Your task to perform on an android device: Open Chrome and go to settings Image 0: 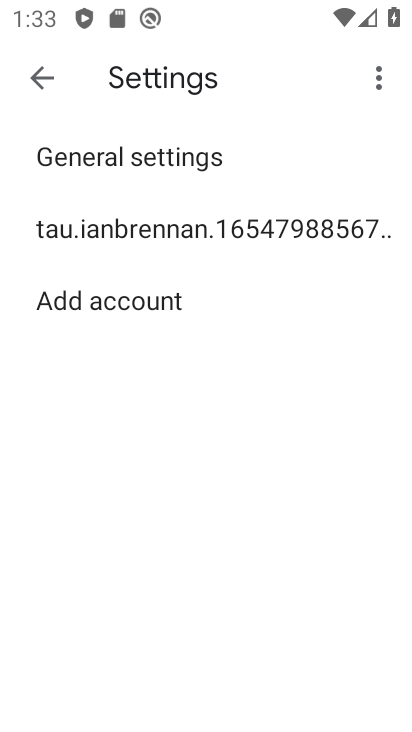
Step 0: press home button
Your task to perform on an android device: Open Chrome and go to settings Image 1: 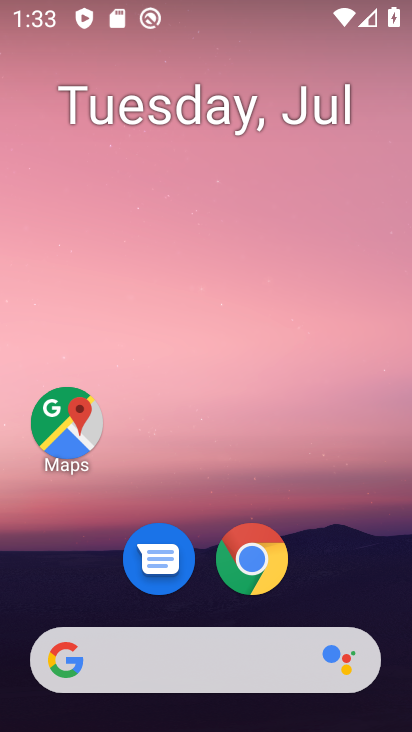
Step 1: drag from (370, 577) to (393, 136)
Your task to perform on an android device: Open Chrome and go to settings Image 2: 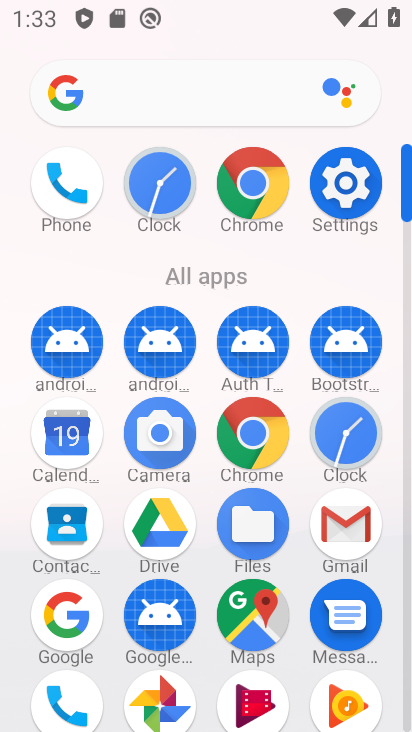
Step 2: click (271, 430)
Your task to perform on an android device: Open Chrome and go to settings Image 3: 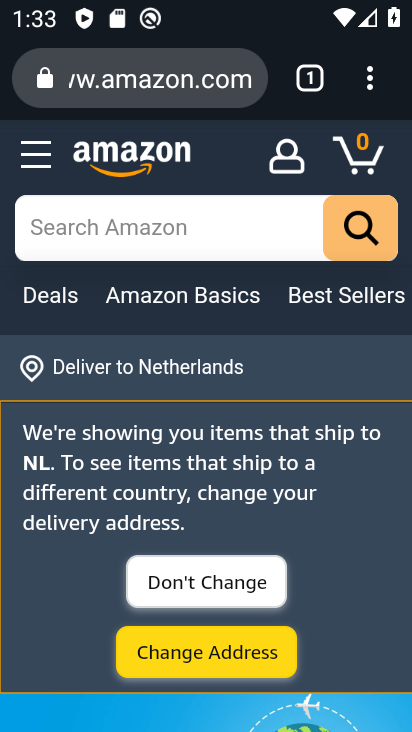
Step 3: click (374, 96)
Your task to perform on an android device: Open Chrome and go to settings Image 4: 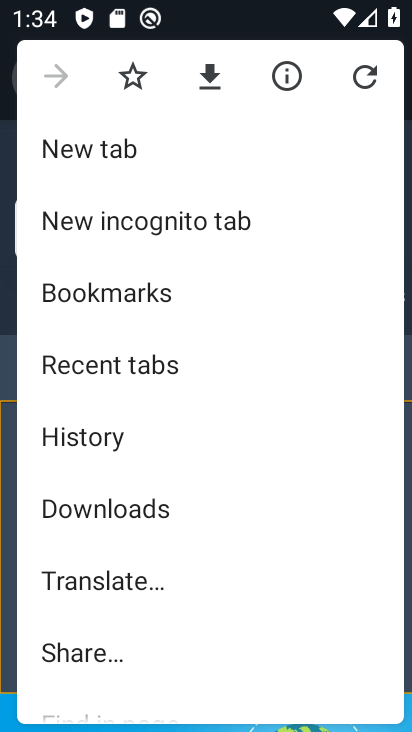
Step 4: drag from (297, 616) to (281, 486)
Your task to perform on an android device: Open Chrome and go to settings Image 5: 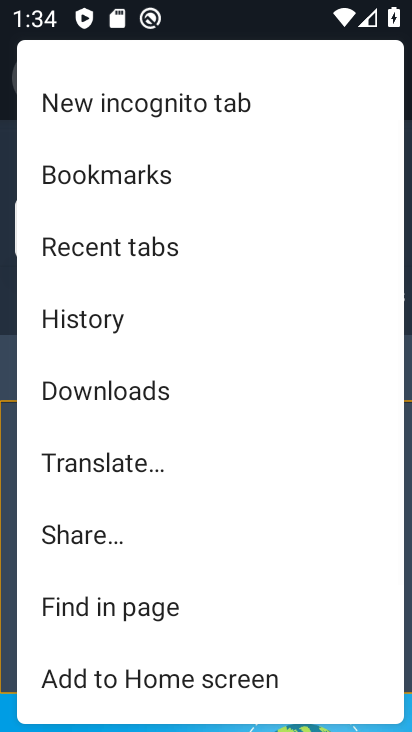
Step 5: drag from (288, 578) to (291, 442)
Your task to perform on an android device: Open Chrome and go to settings Image 6: 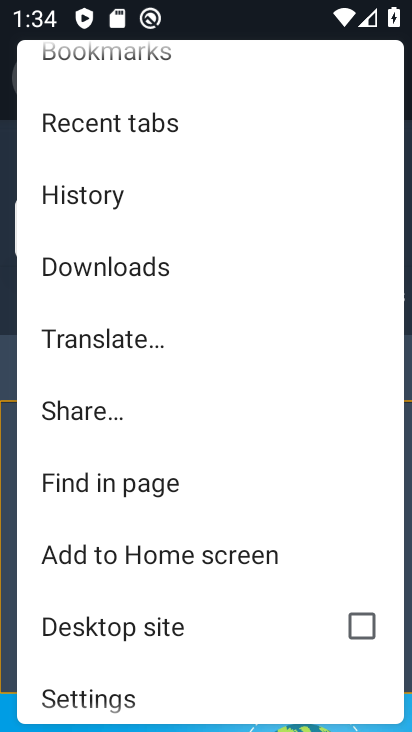
Step 6: drag from (284, 596) to (284, 452)
Your task to perform on an android device: Open Chrome and go to settings Image 7: 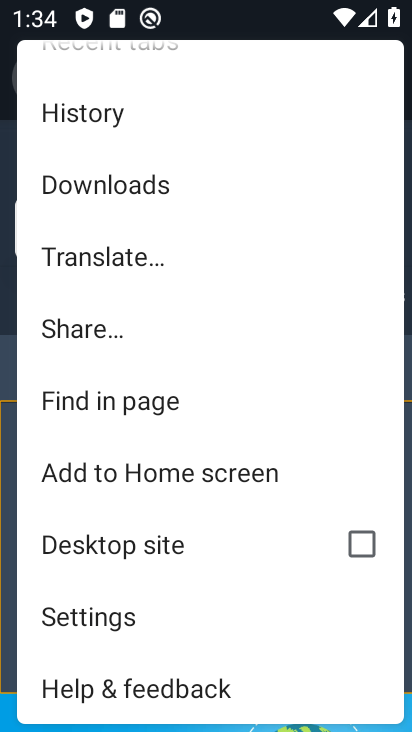
Step 7: click (209, 619)
Your task to perform on an android device: Open Chrome and go to settings Image 8: 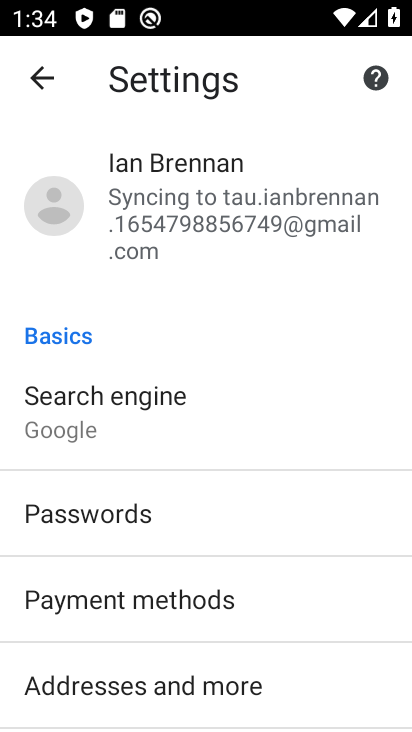
Step 8: task complete